Your task to perform on an android device: set the stopwatch Image 0: 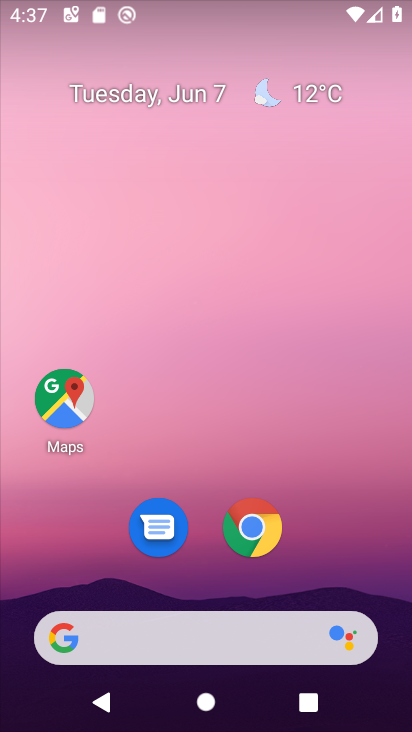
Step 0: drag from (187, 558) to (221, 23)
Your task to perform on an android device: set the stopwatch Image 1: 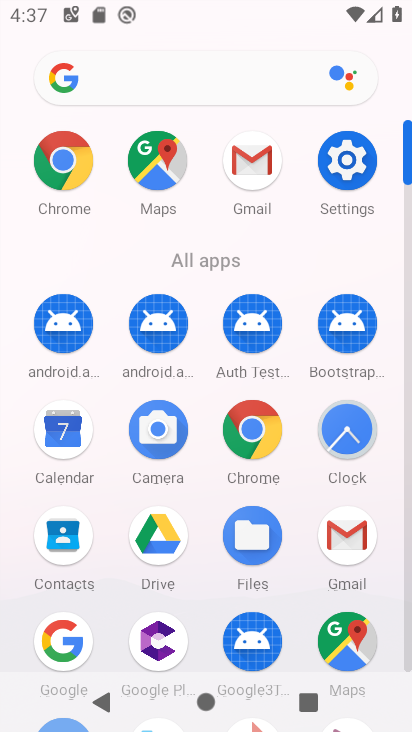
Step 1: click (351, 430)
Your task to perform on an android device: set the stopwatch Image 2: 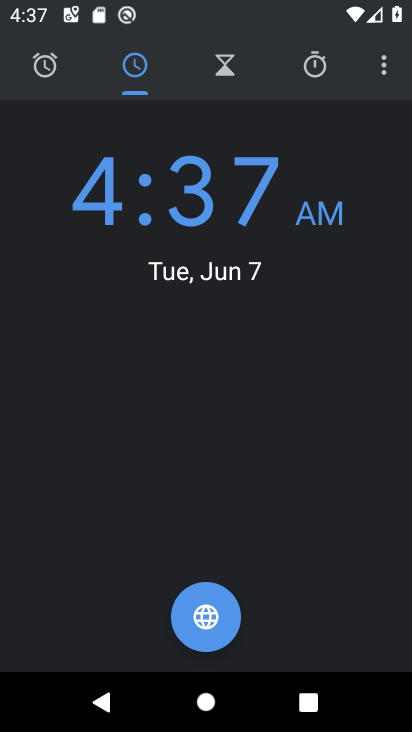
Step 2: click (303, 53)
Your task to perform on an android device: set the stopwatch Image 3: 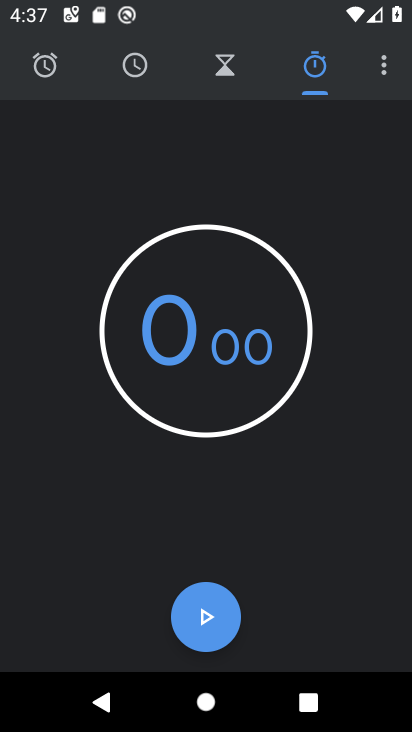
Step 3: click (214, 593)
Your task to perform on an android device: set the stopwatch Image 4: 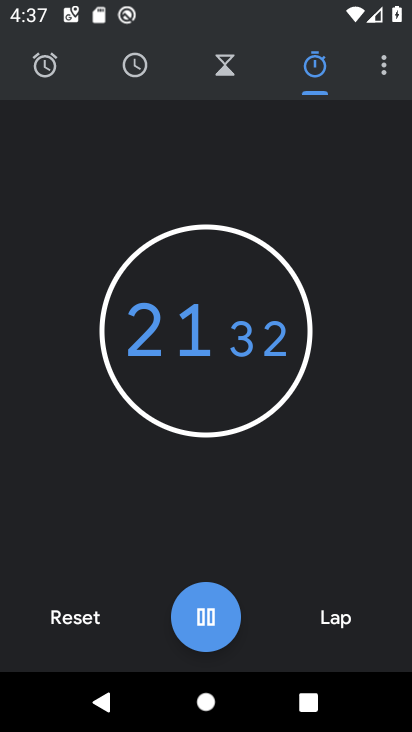
Step 4: task complete